Your task to perform on an android device: Go to location settings Image 0: 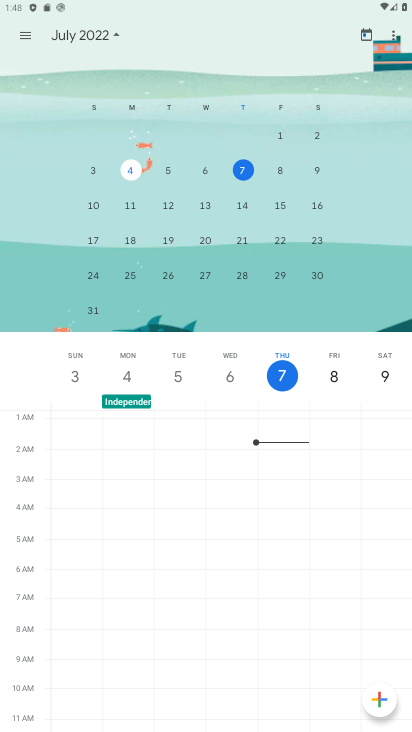
Step 0: press home button
Your task to perform on an android device: Go to location settings Image 1: 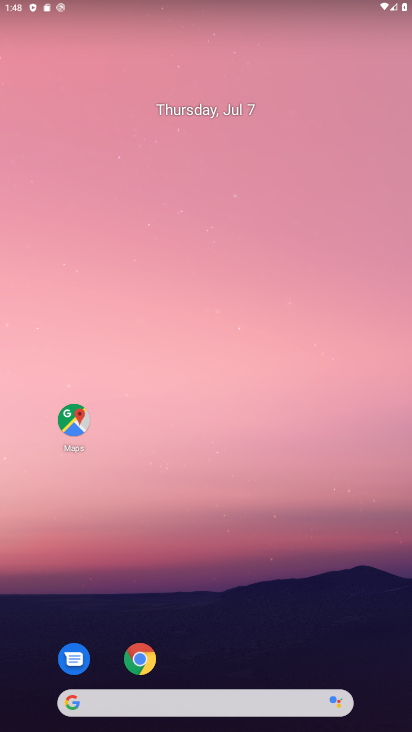
Step 1: drag from (219, 506) to (110, 7)
Your task to perform on an android device: Go to location settings Image 2: 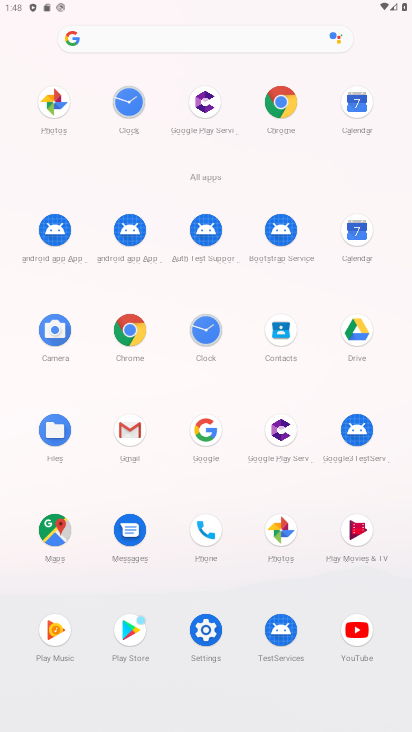
Step 2: click (207, 636)
Your task to perform on an android device: Go to location settings Image 3: 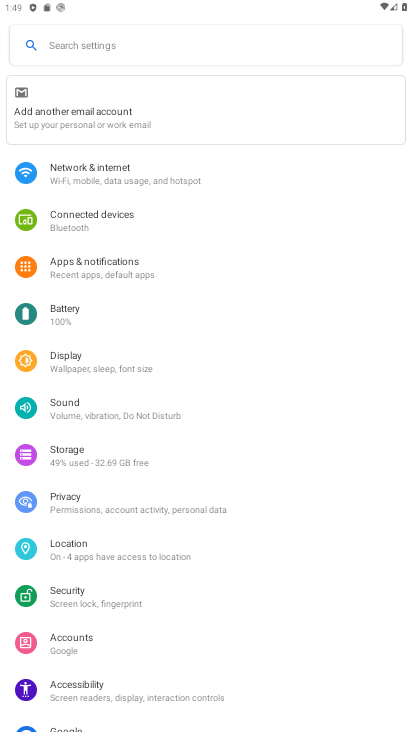
Step 3: click (92, 542)
Your task to perform on an android device: Go to location settings Image 4: 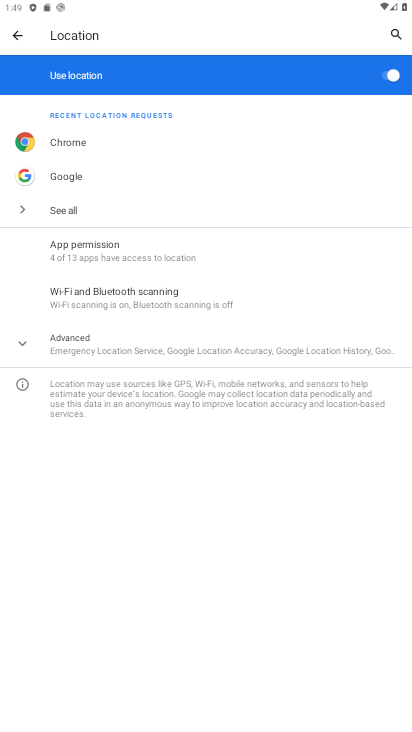
Step 4: task complete